Your task to perform on an android device: open the mobile data screen to see how much data has been used Image 0: 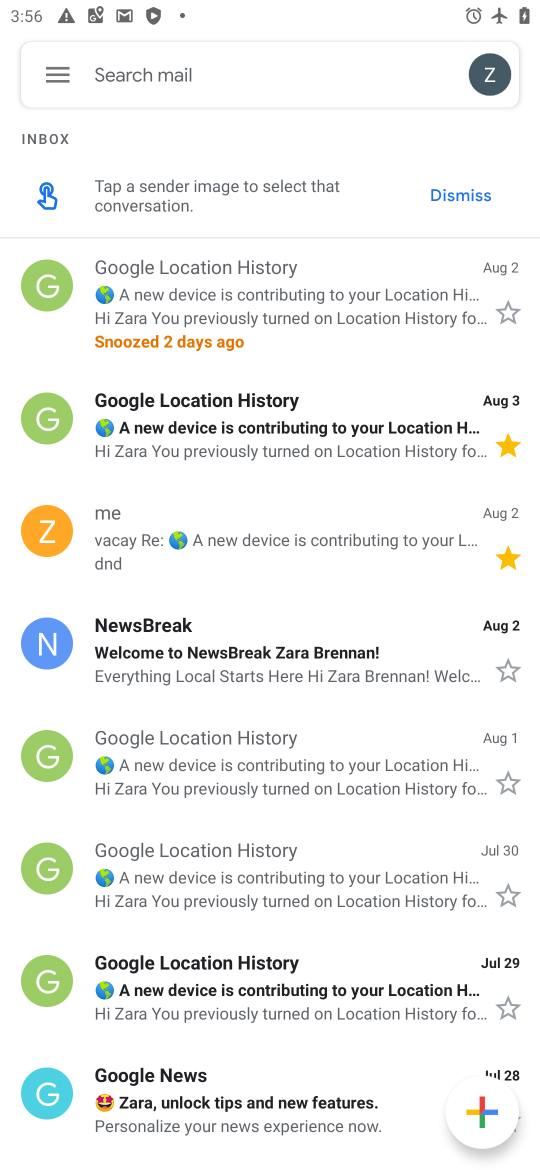
Step 0: press back button
Your task to perform on an android device: open the mobile data screen to see how much data has been used Image 1: 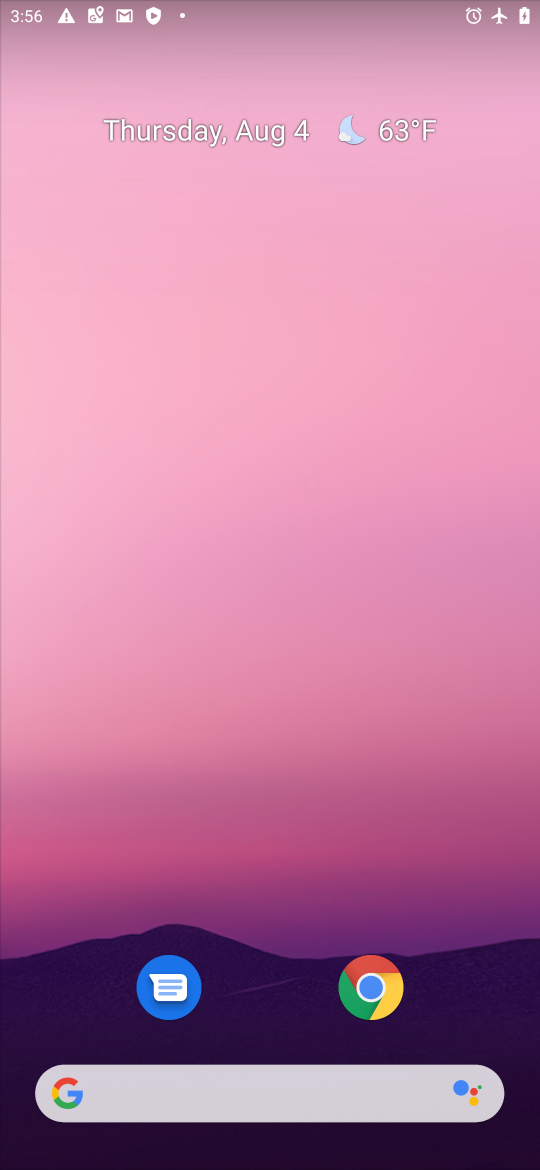
Step 1: drag from (263, 985) to (286, 78)
Your task to perform on an android device: open the mobile data screen to see how much data has been used Image 2: 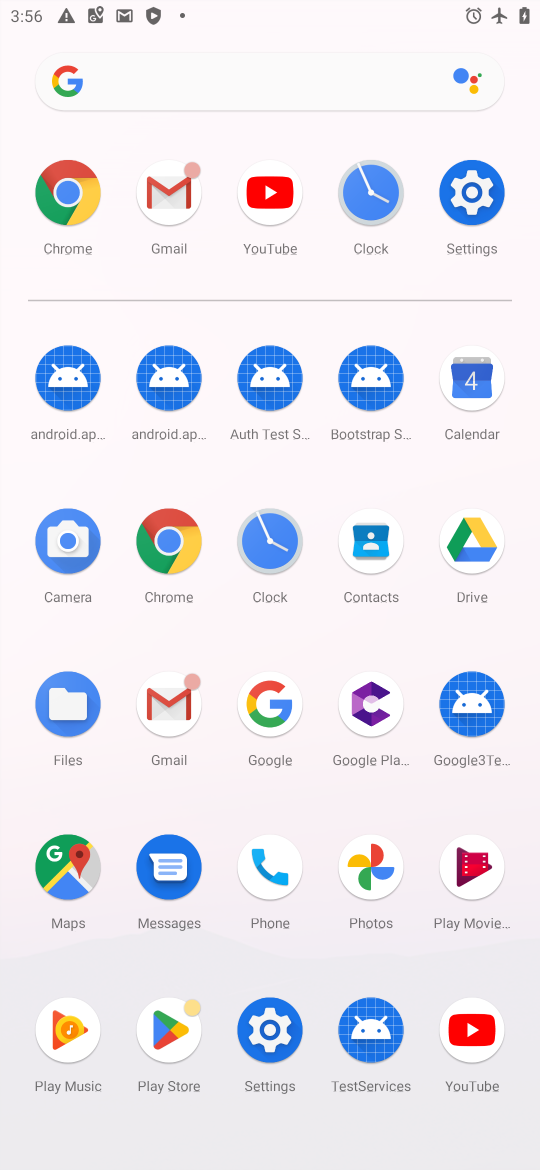
Step 2: click (466, 190)
Your task to perform on an android device: open the mobile data screen to see how much data has been used Image 3: 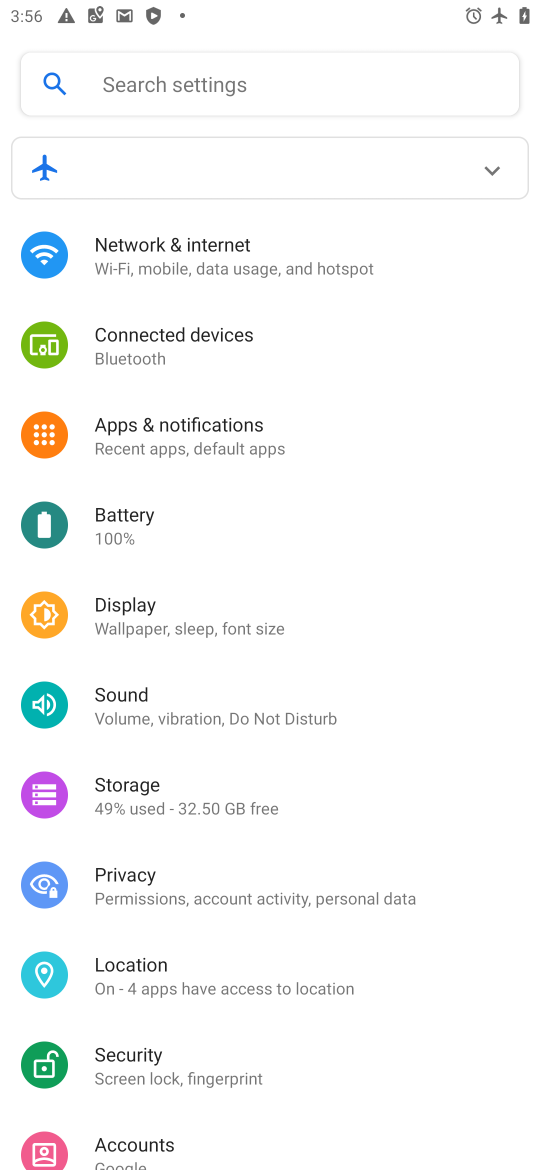
Step 3: click (466, 190)
Your task to perform on an android device: open the mobile data screen to see how much data has been used Image 4: 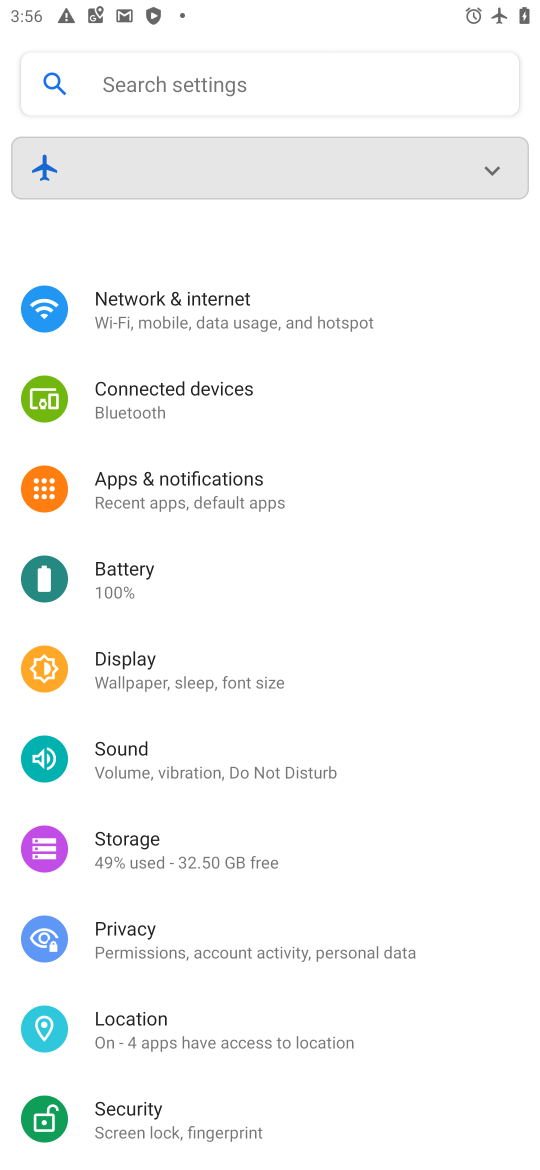
Step 4: click (192, 255)
Your task to perform on an android device: open the mobile data screen to see how much data has been used Image 5: 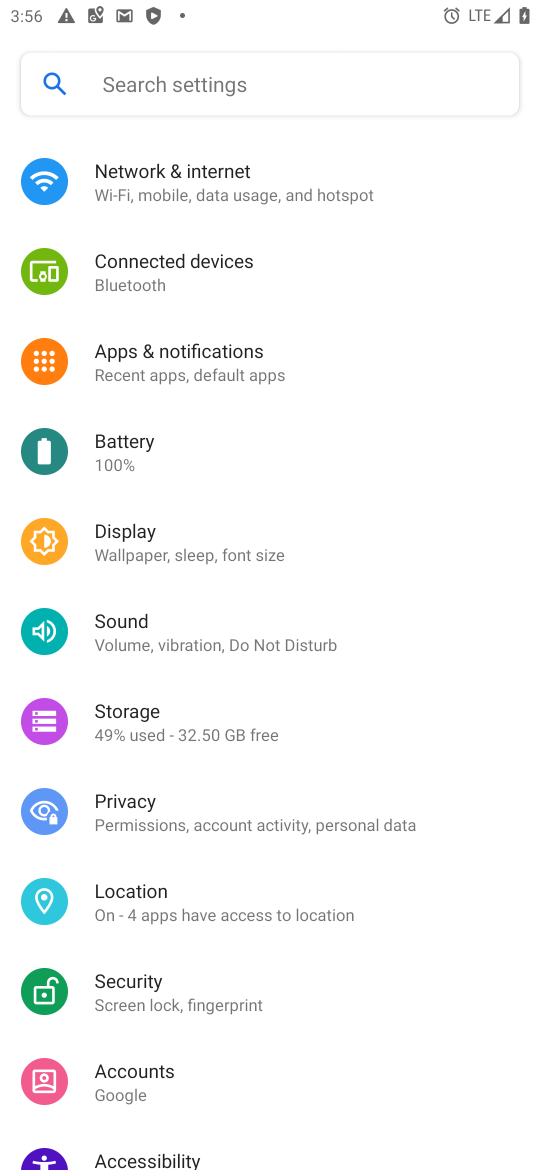
Step 5: click (169, 190)
Your task to perform on an android device: open the mobile data screen to see how much data has been used Image 6: 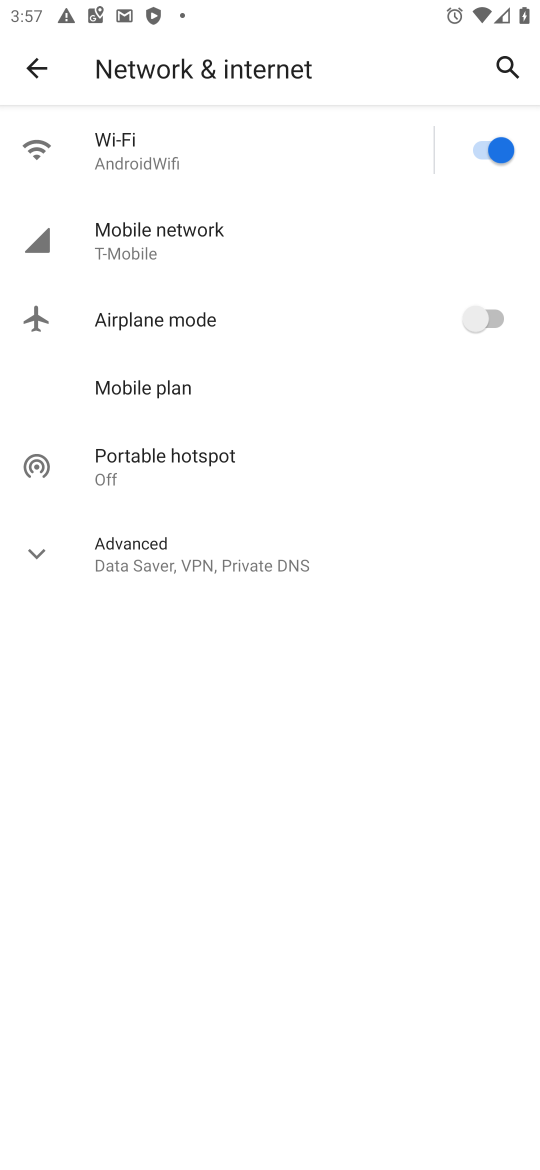
Step 6: click (197, 244)
Your task to perform on an android device: open the mobile data screen to see how much data has been used Image 7: 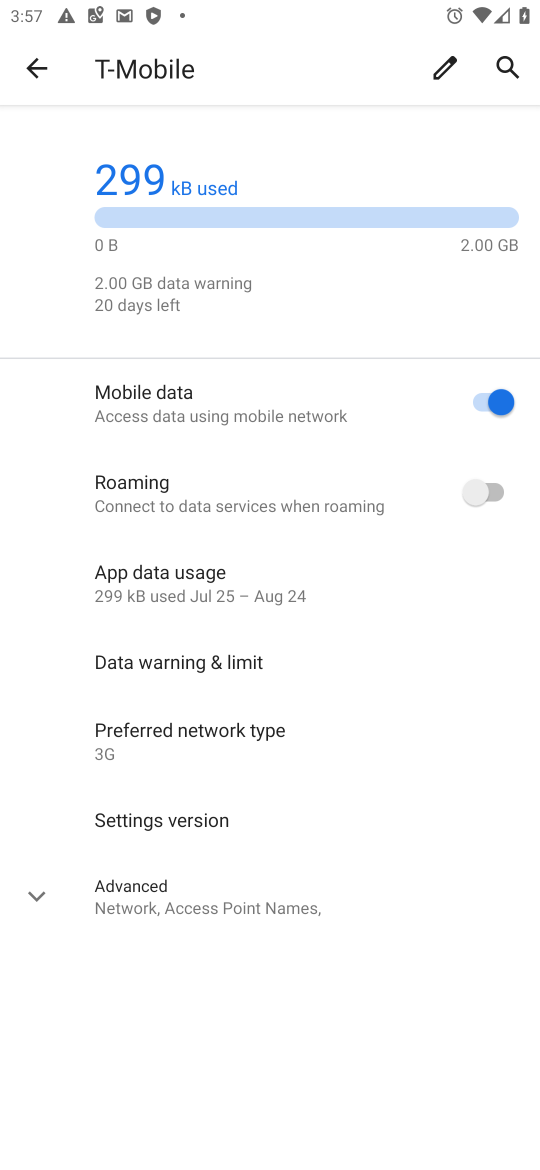
Step 7: task complete